Your task to perform on an android device: Search for sushi restaurants on Maps Image 0: 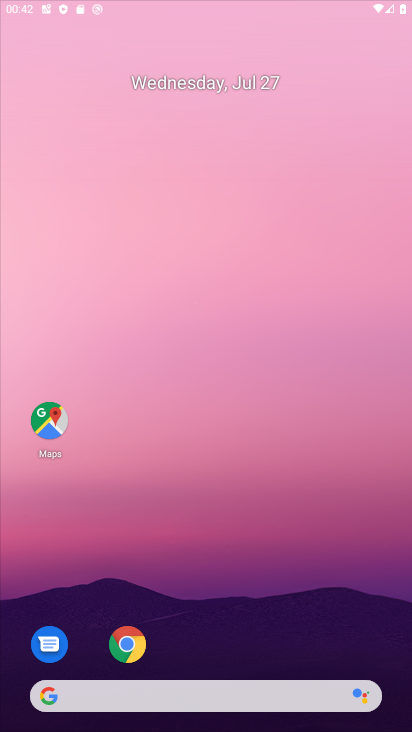
Step 0: drag from (284, 627) to (223, 170)
Your task to perform on an android device: Search for sushi restaurants on Maps Image 1: 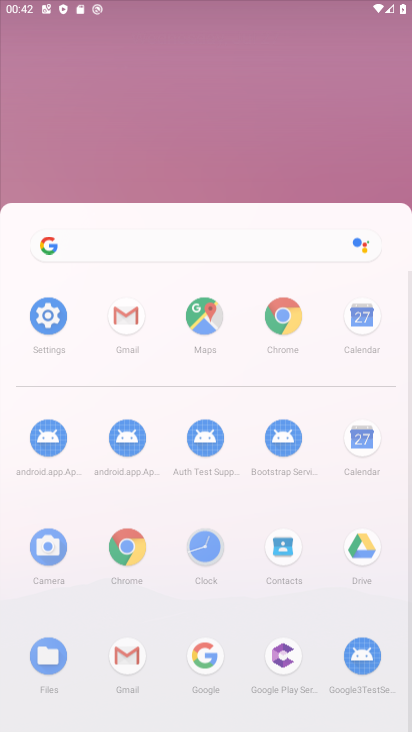
Step 1: drag from (236, 551) to (205, 177)
Your task to perform on an android device: Search for sushi restaurants on Maps Image 2: 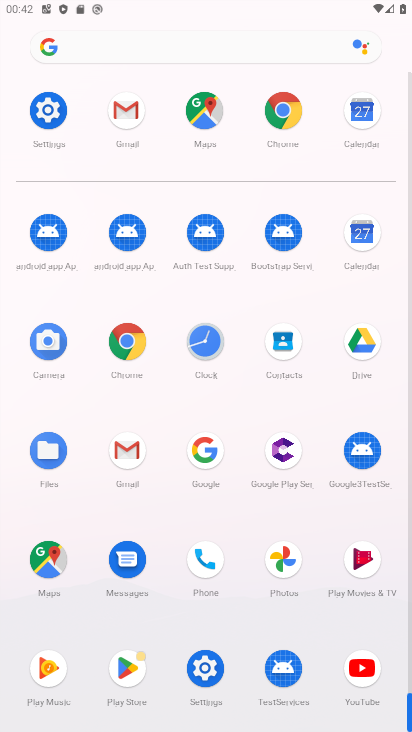
Step 2: click (48, 548)
Your task to perform on an android device: Search for sushi restaurants on Maps Image 3: 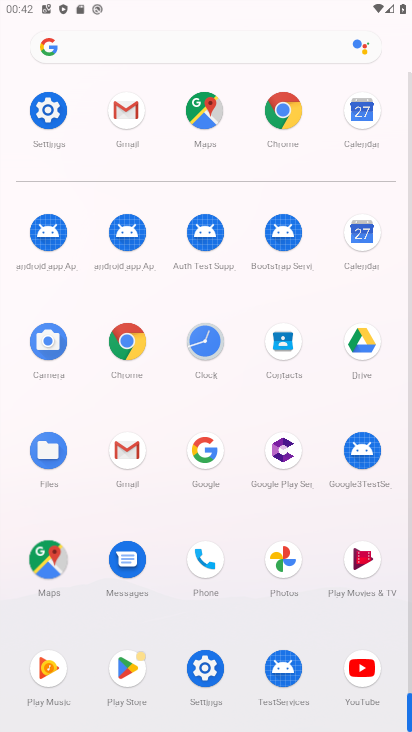
Step 3: click (45, 552)
Your task to perform on an android device: Search for sushi restaurants on Maps Image 4: 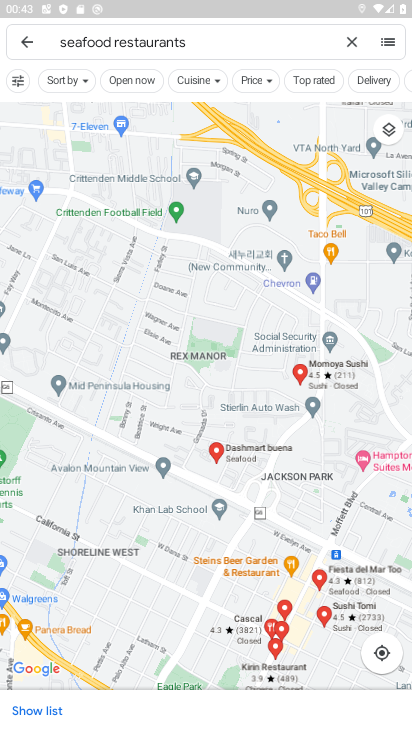
Step 4: task complete